Your task to perform on an android device: turn on priority inbox in the gmail app Image 0: 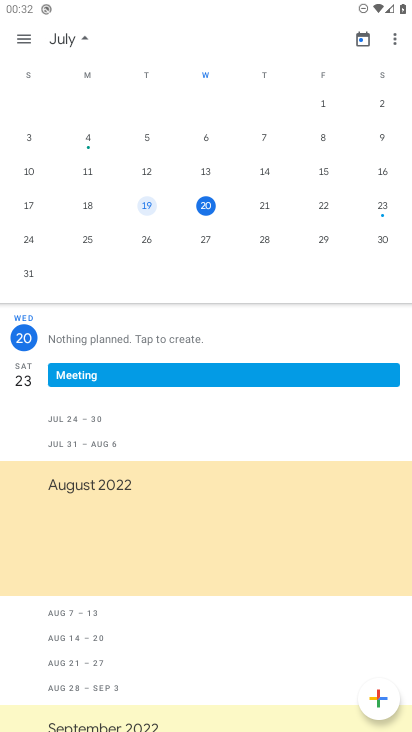
Step 0: press home button
Your task to perform on an android device: turn on priority inbox in the gmail app Image 1: 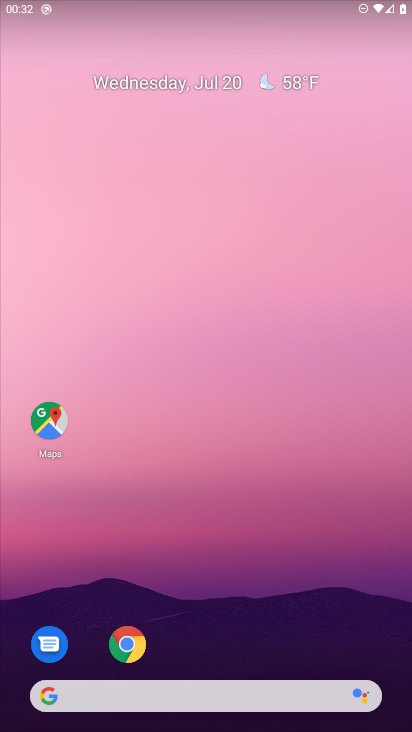
Step 1: drag from (24, 699) to (248, 125)
Your task to perform on an android device: turn on priority inbox in the gmail app Image 2: 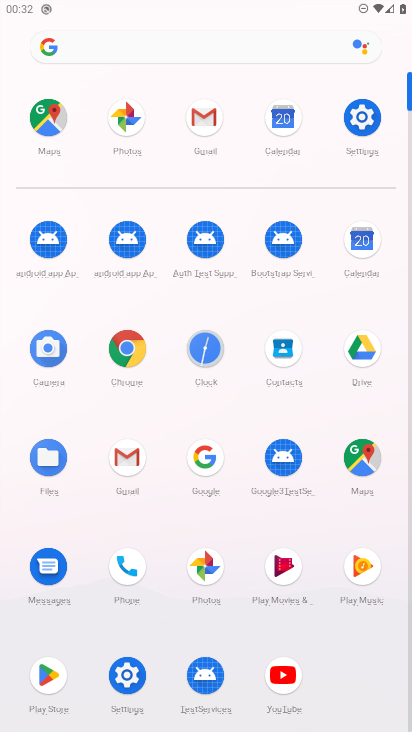
Step 2: click (121, 455)
Your task to perform on an android device: turn on priority inbox in the gmail app Image 3: 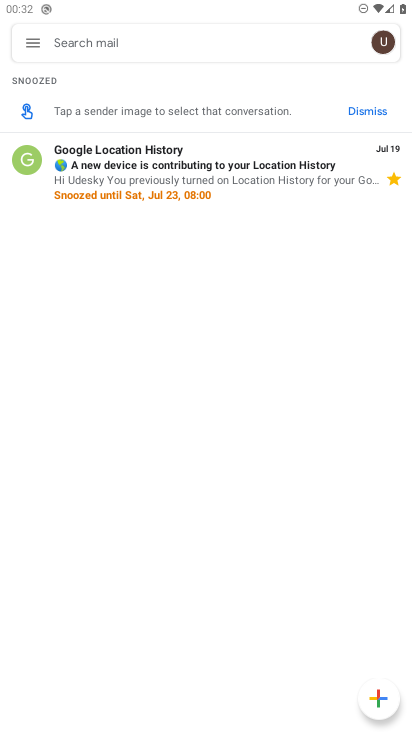
Step 3: click (33, 49)
Your task to perform on an android device: turn on priority inbox in the gmail app Image 4: 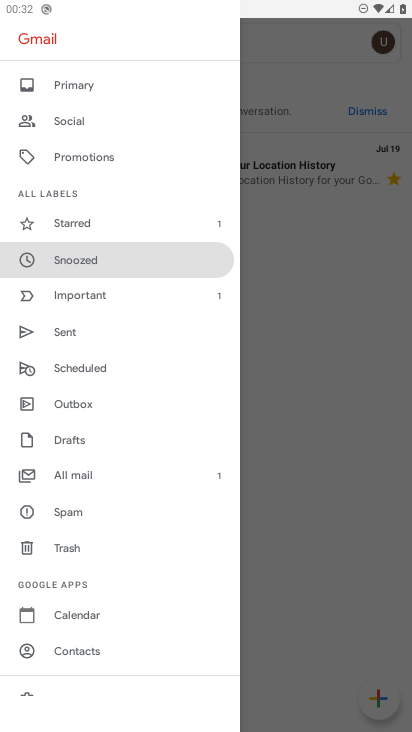
Step 4: drag from (102, 646) to (214, 230)
Your task to perform on an android device: turn on priority inbox in the gmail app Image 5: 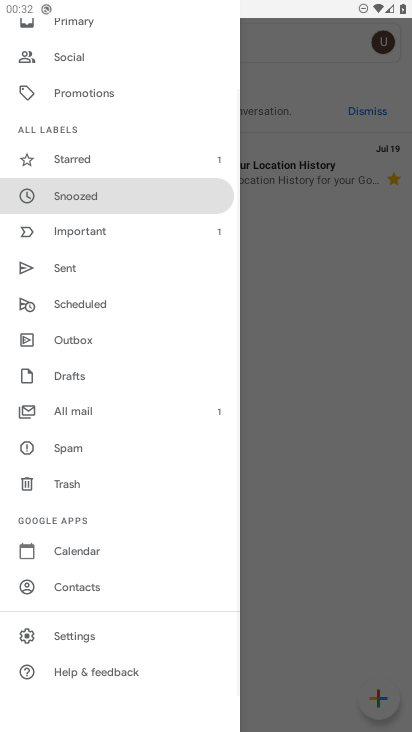
Step 5: click (74, 627)
Your task to perform on an android device: turn on priority inbox in the gmail app Image 6: 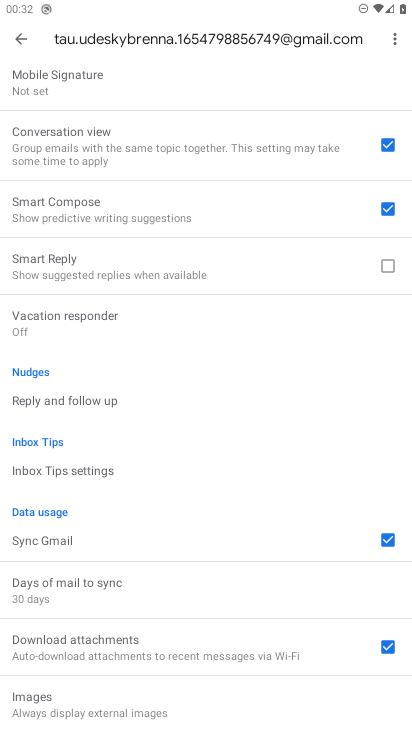
Step 6: drag from (223, 666) to (268, 157)
Your task to perform on an android device: turn on priority inbox in the gmail app Image 7: 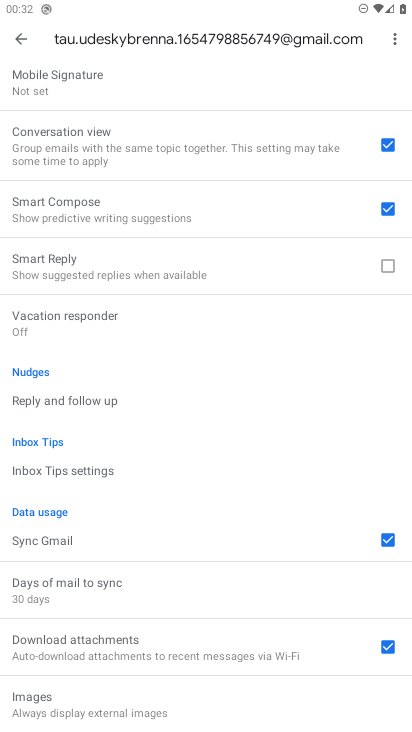
Step 7: drag from (184, 193) to (135, 730)
Your task to perform on an android device: turn on priority inbox in the gmail app Image 8: 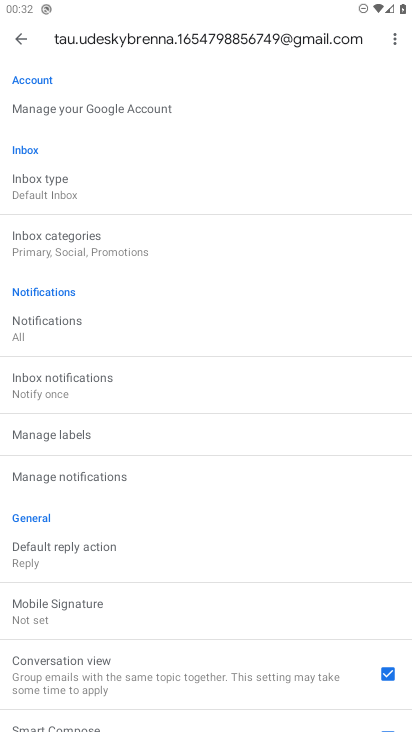
Step 8: click (15, 36)
Your task to perform on an android device: turn on priority inbox in the gmail app Image 9: 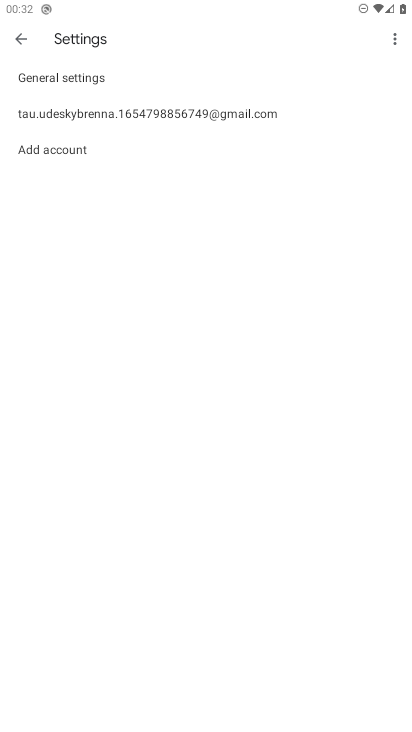
Step 9: click (78, 117)
Your task to perform on an android device: turn on priority inbox in the gmail app Image 10: 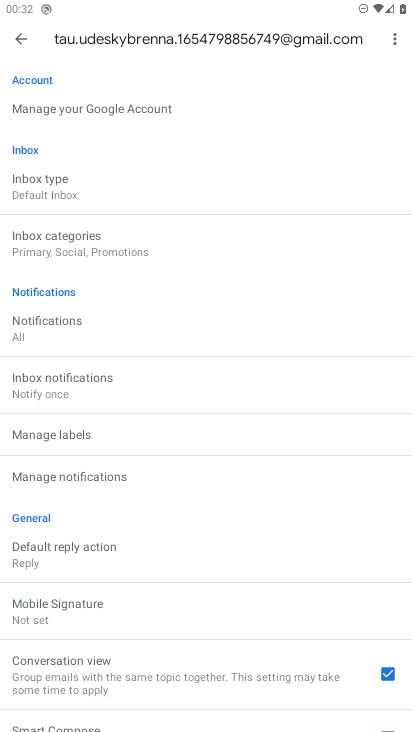
Step 10: click (85, 193)
Your task to perform on an android device: turn on priority inbox in the gmail app Image 11: 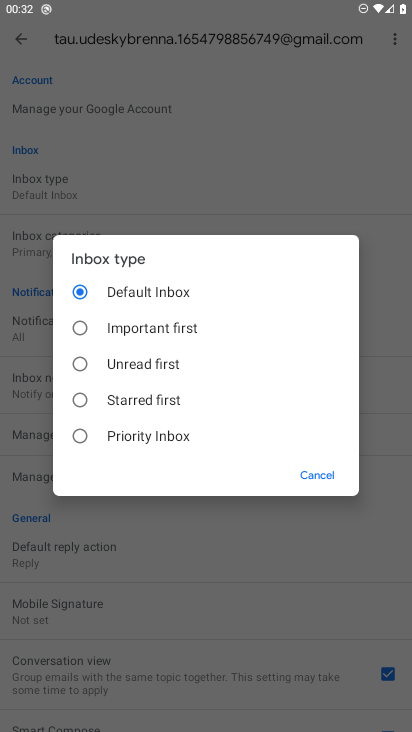
Step 11: click (83, 434)
Your task to perform on an android device: turn on priority inbox in the gmail app Image 12: 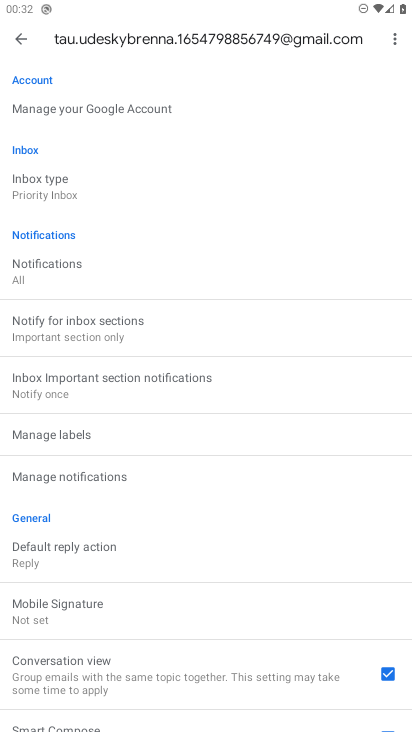
Step 12: task complete